Your task to perform on an android device: Open the stopwatch Image 0: 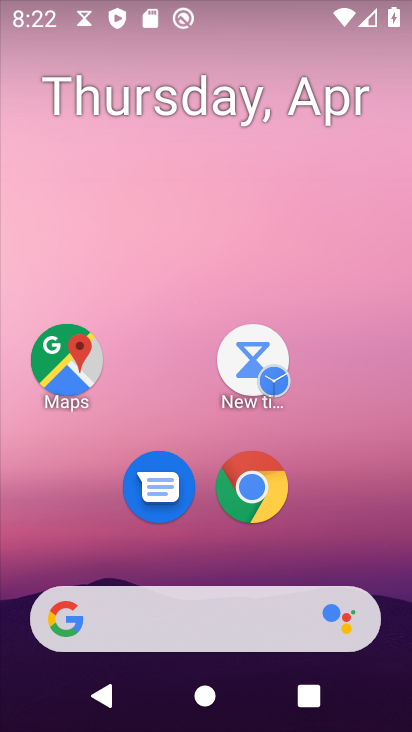
Step 0: drag from (318, 525) to (274, 83)
Your task to perform on an android device: Open the stopwatch Image 1: 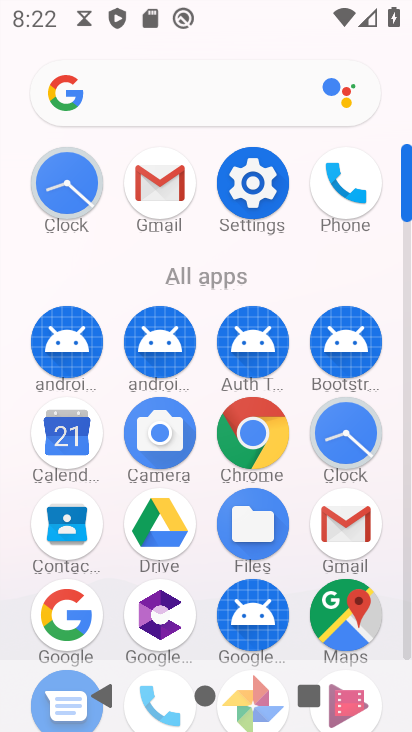
Step 1: click (352, 422)
Your task to perform on an android device: Open the stopwatch Image 2: 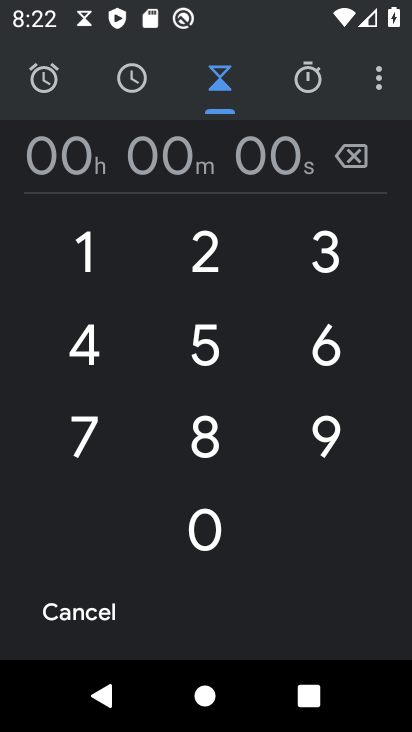
Step 2: click (306, 95)
Your task to perform on an android device: Open the stopwatch Image 3: 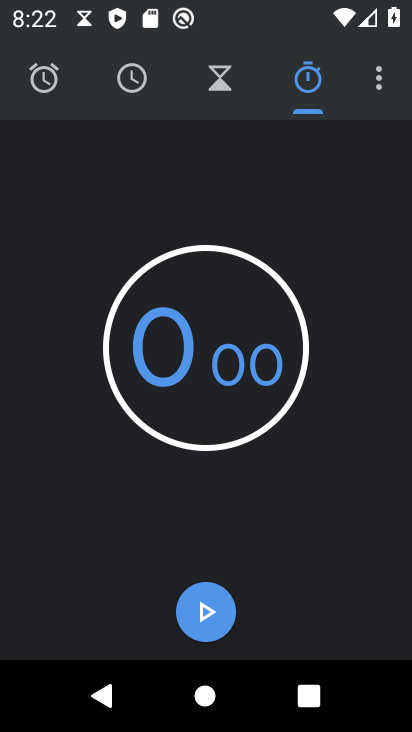
Step 3: task complete